Your task to perform on an android device: Go to Reddit.com Image 0: 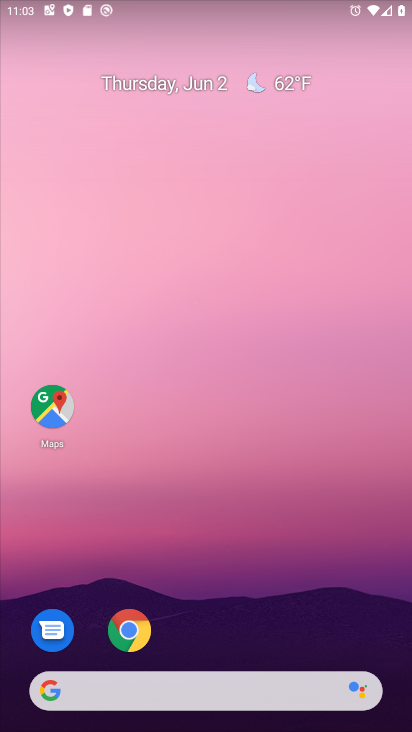
Step 0: press home button
Your task to perform on an android device: Go to Reddit.com Image 1: 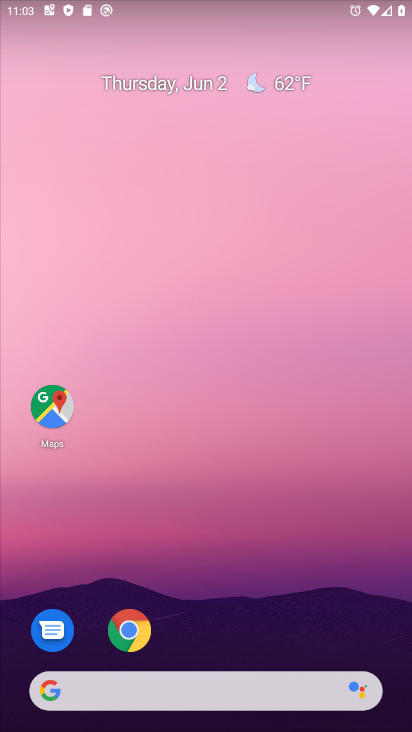
Step 1: click (128, 639)
Your task to perform on an android device: Go to Reddit.com Image 2: 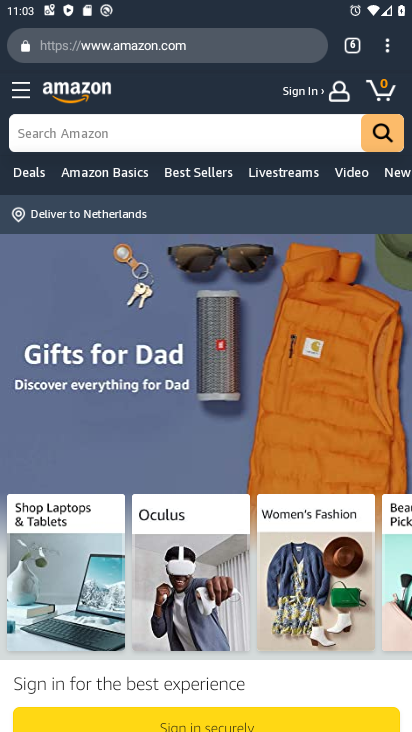
Step 2: drag from (390, 55) to (249, 91)
Your task to perform on an android device: Go to Reddit.com Image 3: 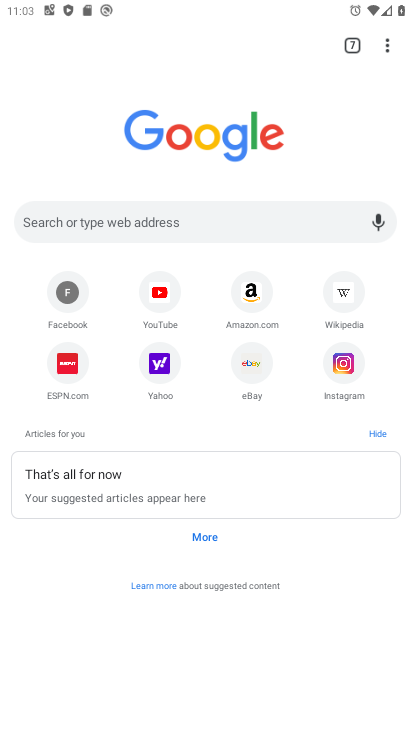
Step 3: click (186, 219)
Your task to perform on an android device: Go to Reddit.com Image 4: 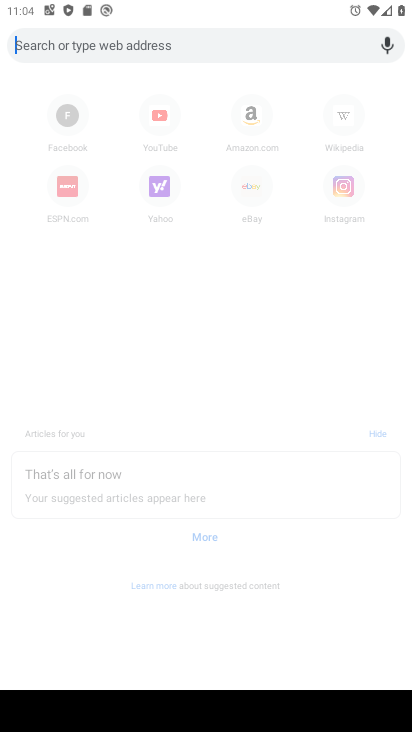
Step 4: type "reddit.com"
Your task to perform on an android device: Go to Reddit.com Image 5: 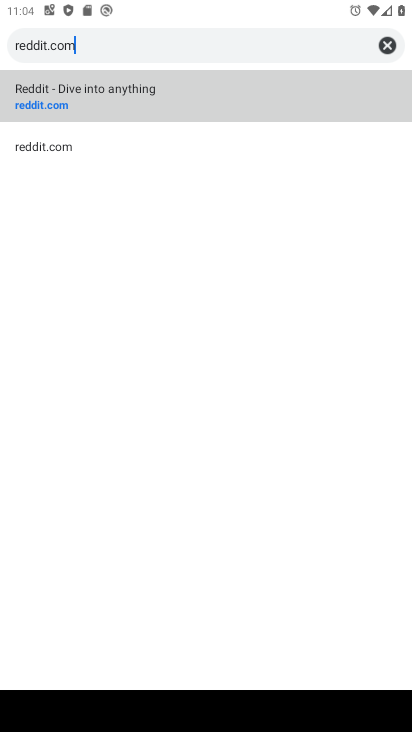
Step 5: click (124, 90)
Your task to perform on an android device: Go to Reddit.com Image 6: 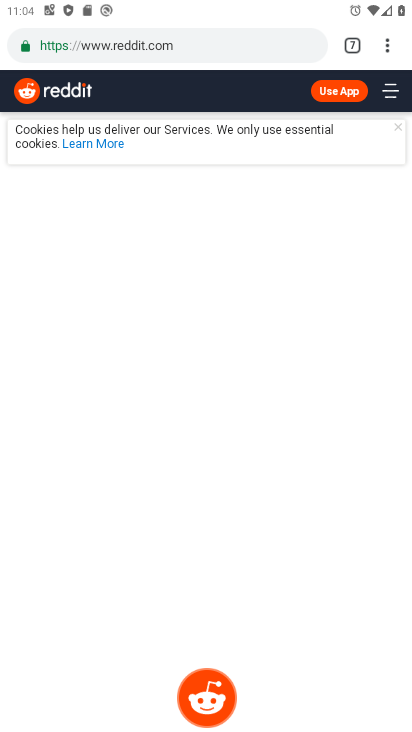
Step 6: task complete